Your task to perform on an android device: Search for seafood restaurants on Google Maps Image 0: 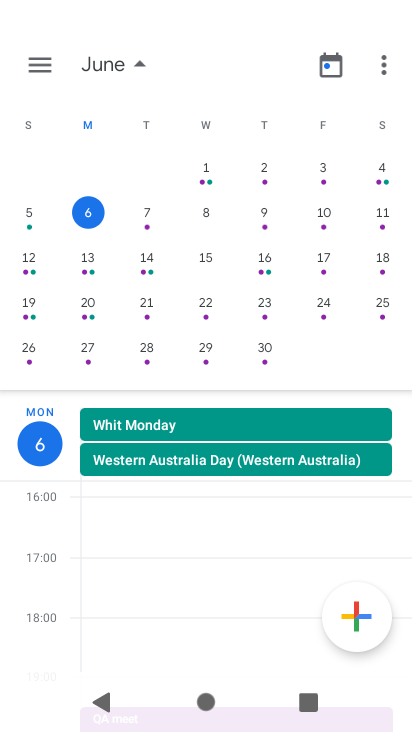
Step 0: press home button
Your task to perform on an android device: Search for seafood restaurants on Google Maps Image 1: 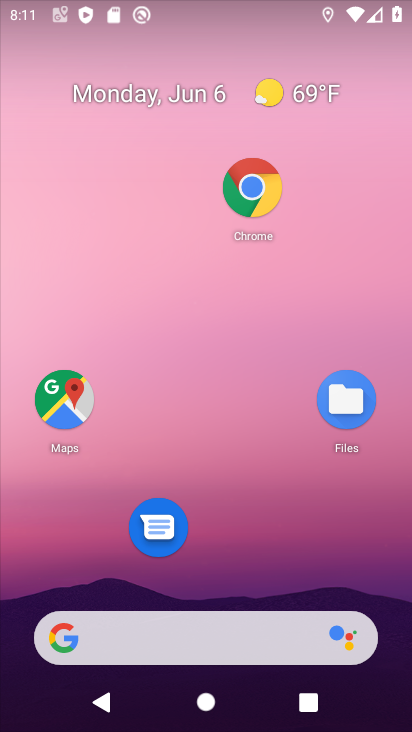
Step 1: click (74, 398)
Your task to perform on an android device: Search for seafood restaurants on Google Maps Image 2: 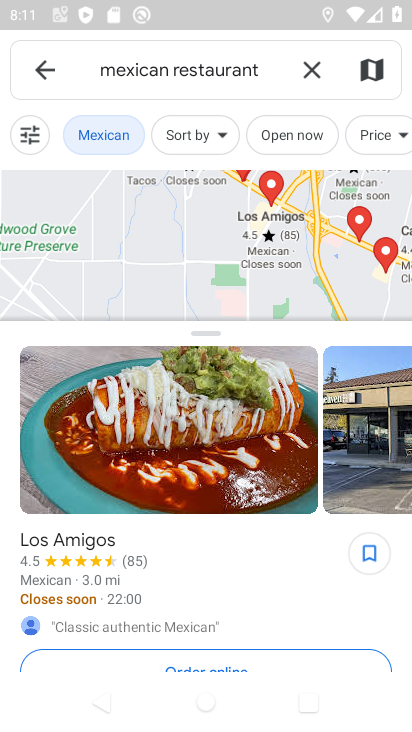
Step 2: click (307, 70)
Your task to perform on an android device: Search for seafood restaurants on Google Maps Image 3: 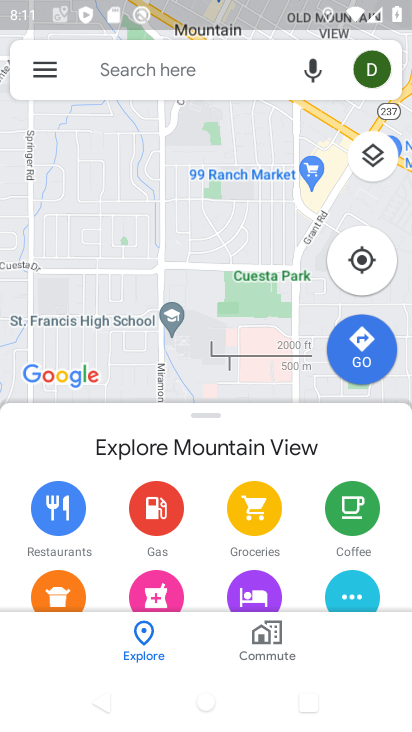
Step 3: click (139, 73)
Your task to perform on an android device: Search for seafood restaurants on Google Maps Image 4: 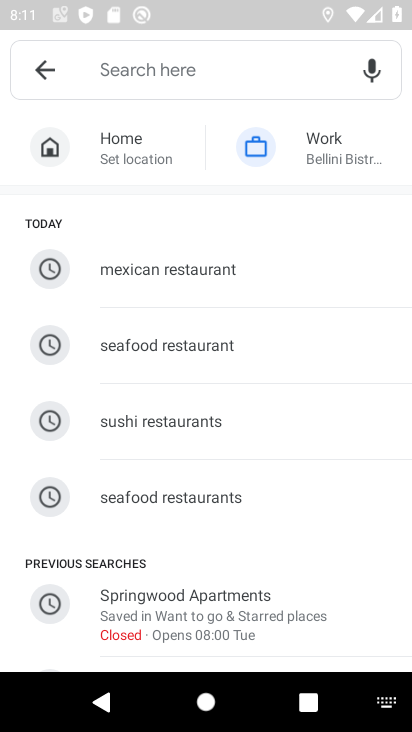
Step 4: click (136, 345)
Your task to perform on an android device: Search for seafood restaurants on Google Maps Image 5: 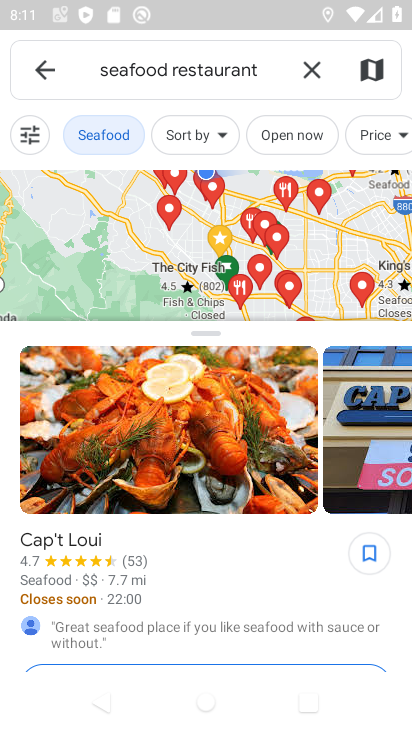
Step 5: task complete